Your task to perform on an android device: turn on sleep mode Image 0: 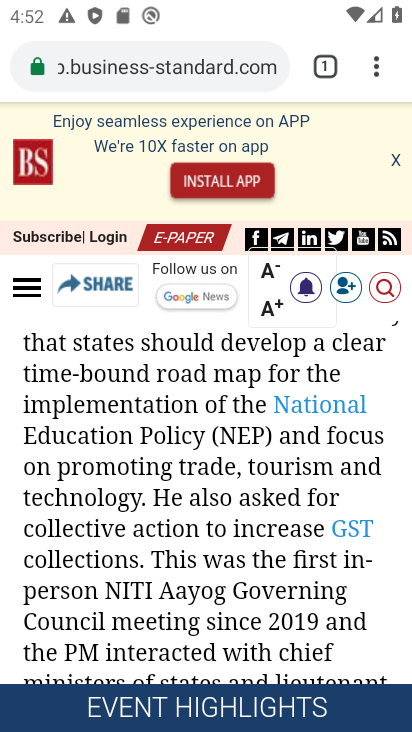
Step 0: press home button
Your task to perform on an android device: turn on sleep mode Image 1: 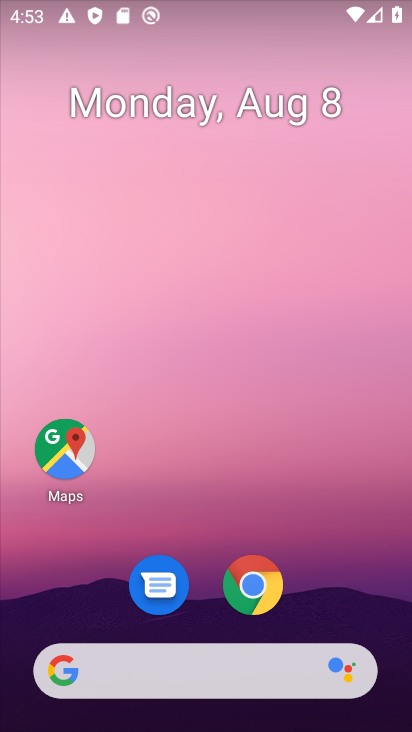
Step 1: drag from (330, 541) to (332, 46)
Your task to perform on an android device: turn on sleep mode Image 2: 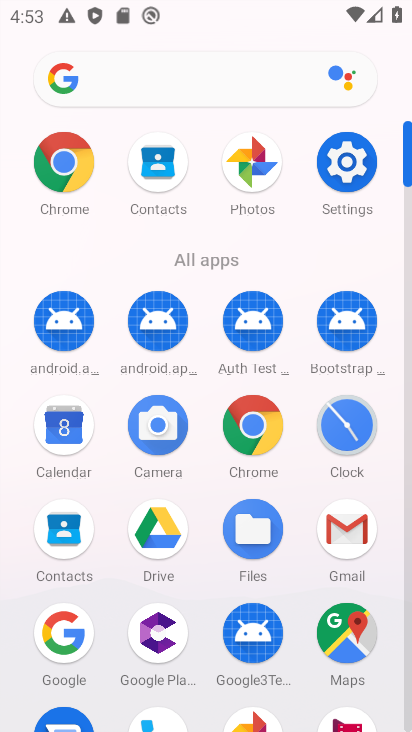
Step 2: click (341, 172)
Your task to perform on an android device: turn on sleep mode Image 3: 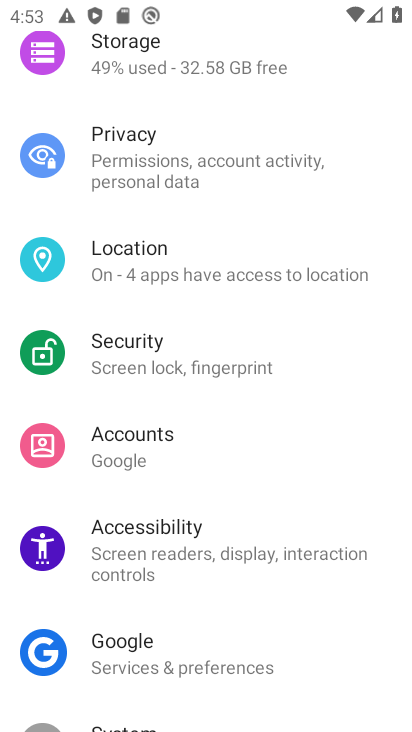
Step 3: drag from (234, 222) to (249, 594)
Your task to perform on an android device: turn on sleep mode Image 4: 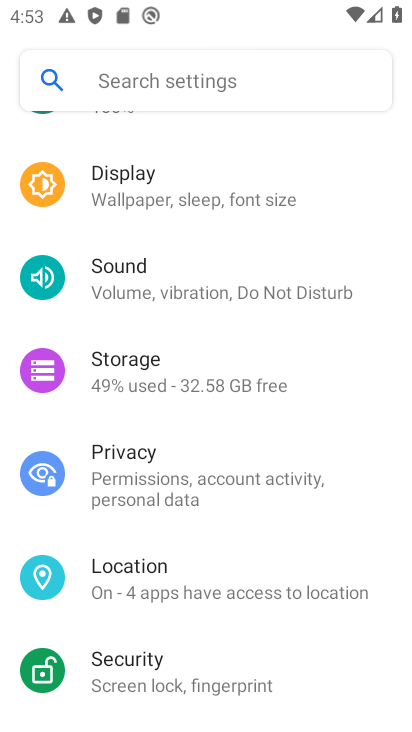
Step 4: click (238, 193)
Your task to perform on an android device: turn on sleep mode Image 5: 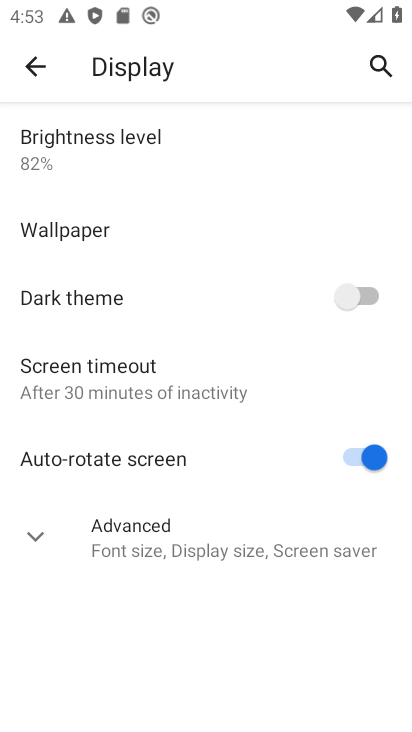
Step 5: click (37, 535)
Your task to perform on an android device: turn on sleep mode Image 6: 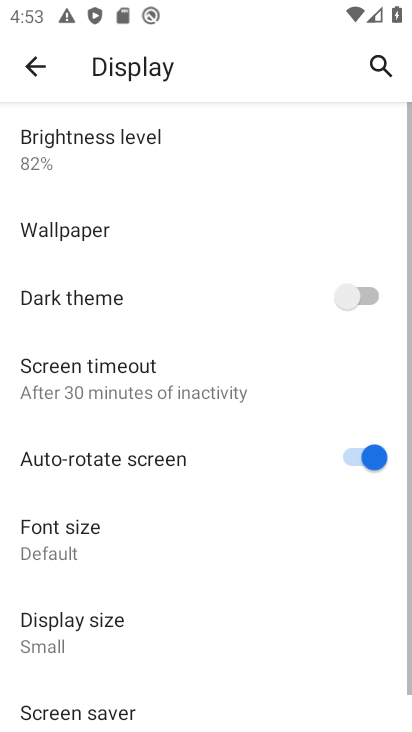
Step 6: task complete